Your task to perform on an android device: find photos in the google photos app Image 0: 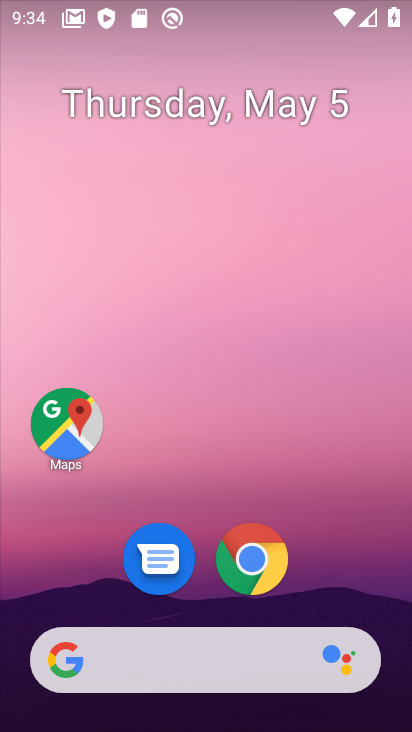
Step 0: drag from (344, 533) to (309, 74)
Your task to perform on an android device: find photos in the google photos app Image 1: 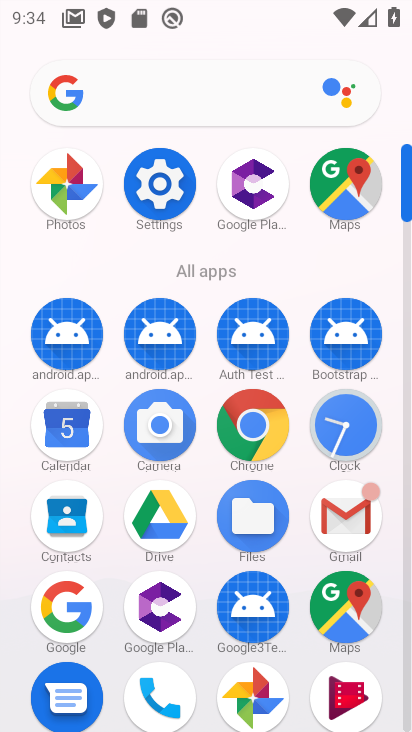
Step 1: click (257, 690)
Your task to perform on an android device: find photos in the google photos app Image 2: 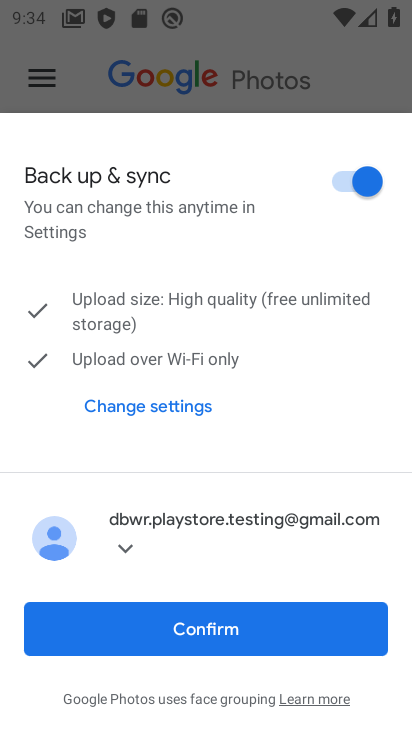
Step 2: click (255, 625)
Your task to perform on an android device: find photos in the google photos app Image 3: 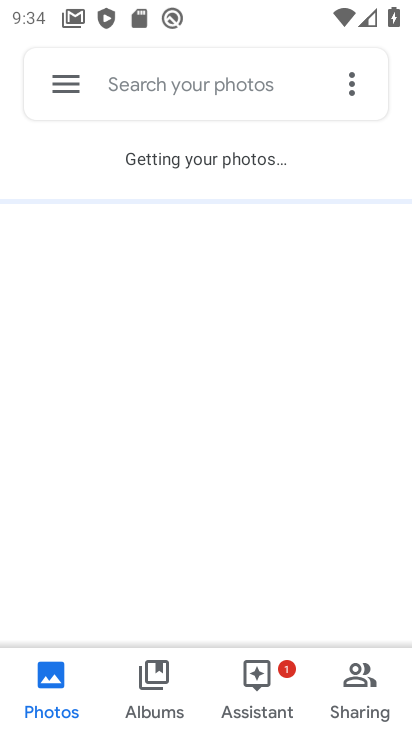
Step 3: click (147, 699)
Your task to perform on an android device: find photos in the google photos app Image 4: 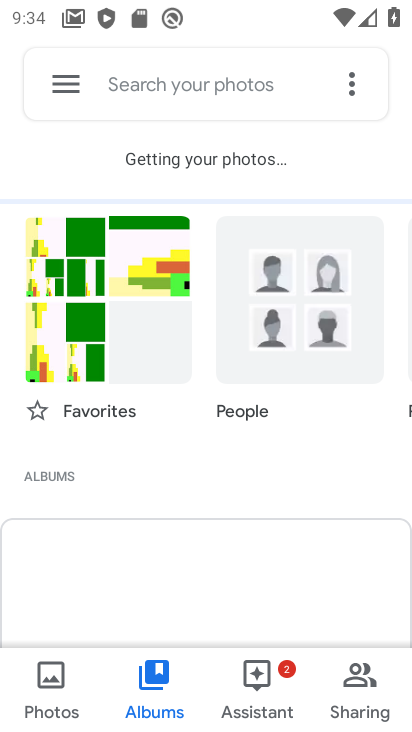
Step 4: click (59, 687)
Your task to perform on an android device: find photos in the google photos app Image 5: 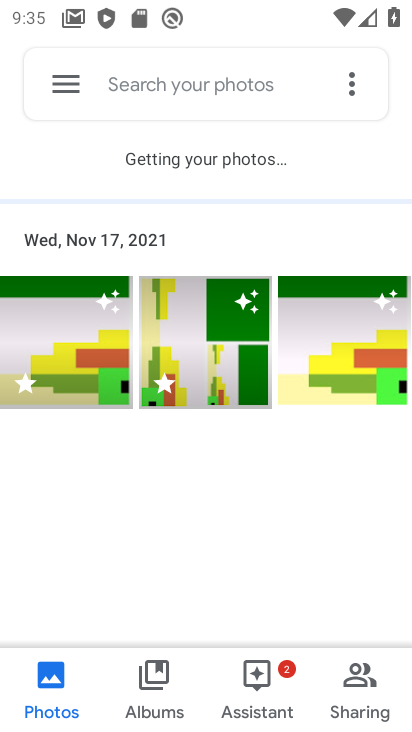
Step 5: click (52, 332)
Your task to perform on an android device: find photos in the google photos app Image 6: 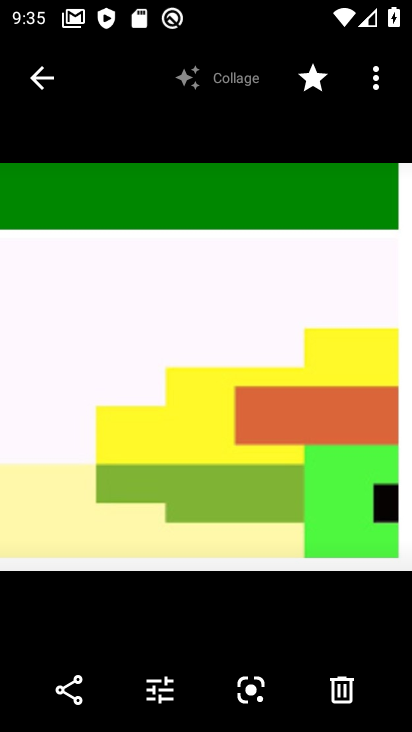
Step 6: task complete